Your task to perform on an android device: What's the weather going to be tomorrow? Image 0: 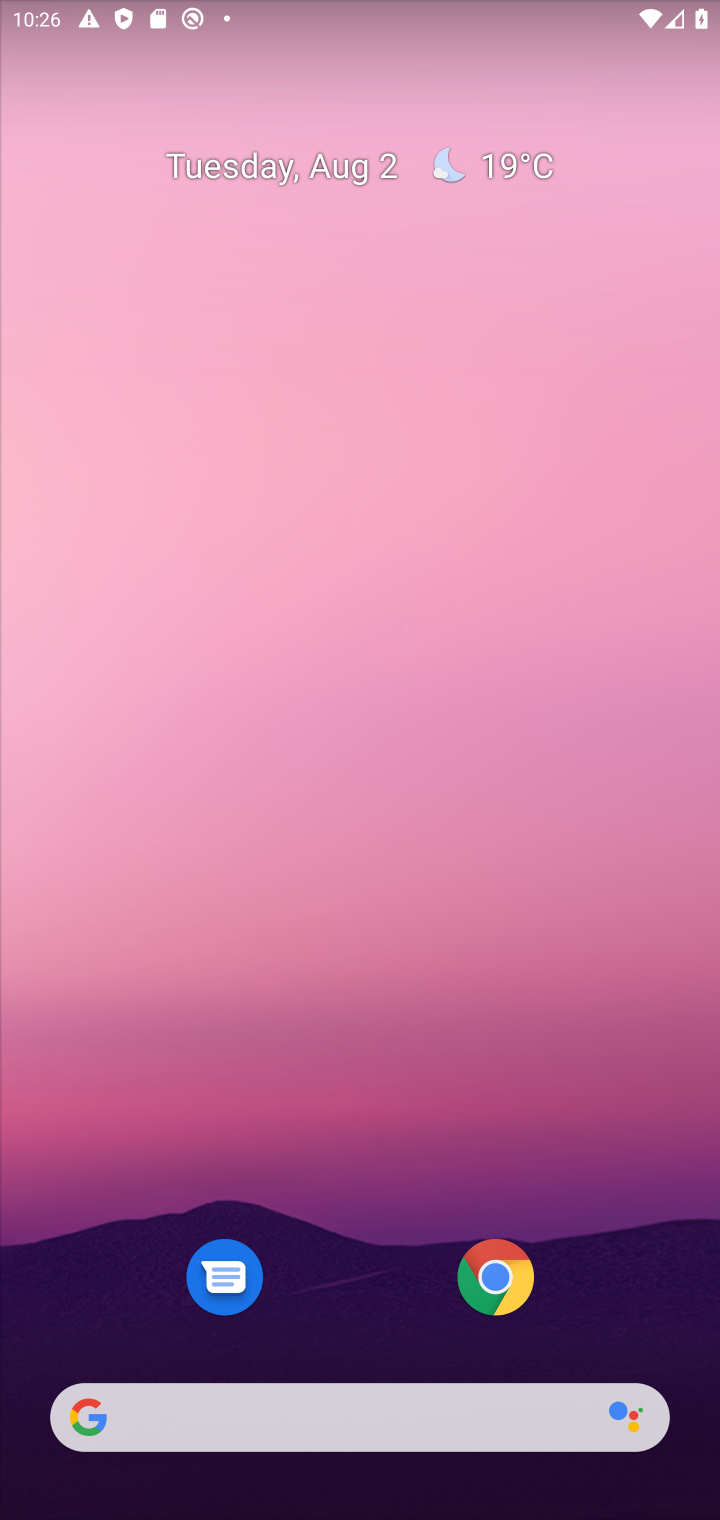
Step 0: click (81, 1420)
Your task to perform on an android device: What's the weather going to be tomorrow? Image 1: 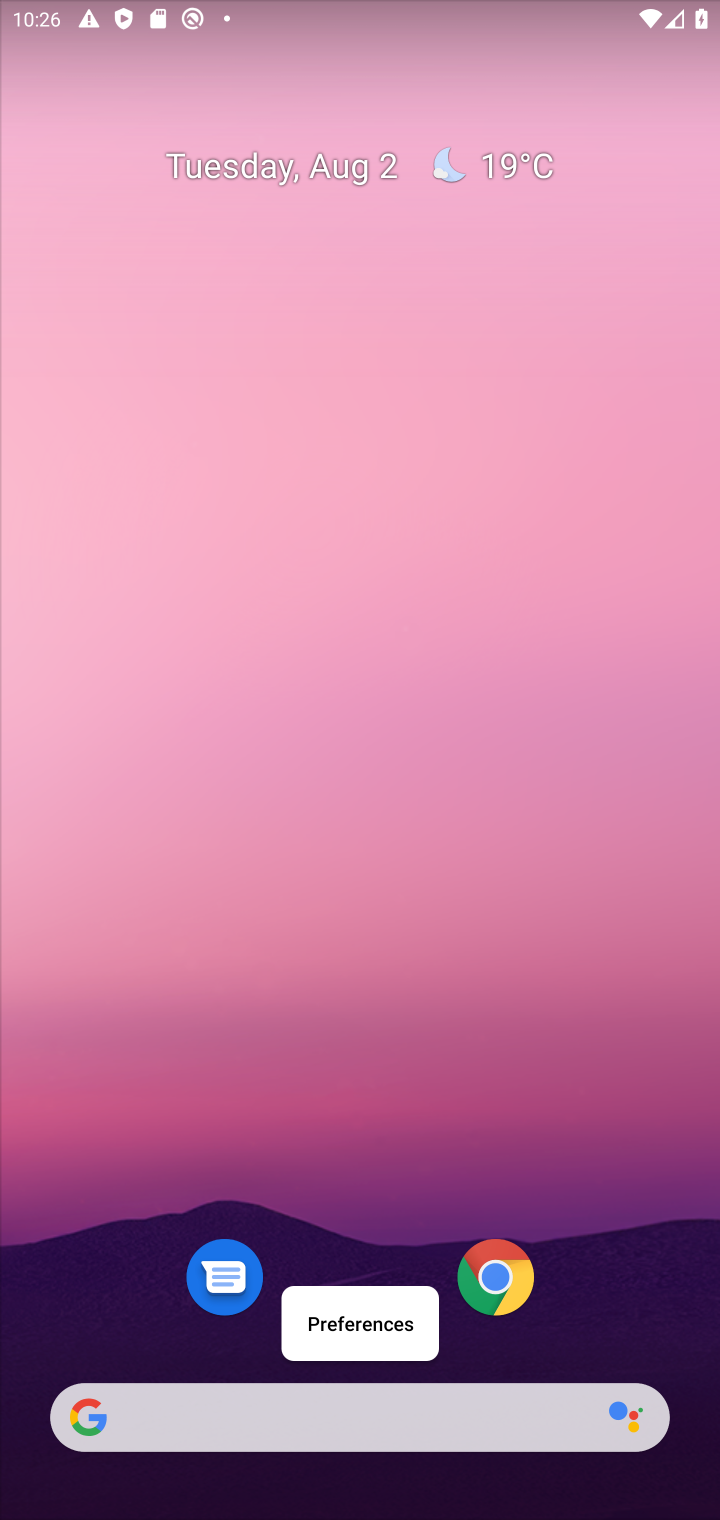
Step 1: click (84, 1414)
Your task to perform on an android device: What's the weather going to be tomorrow? Image 2: 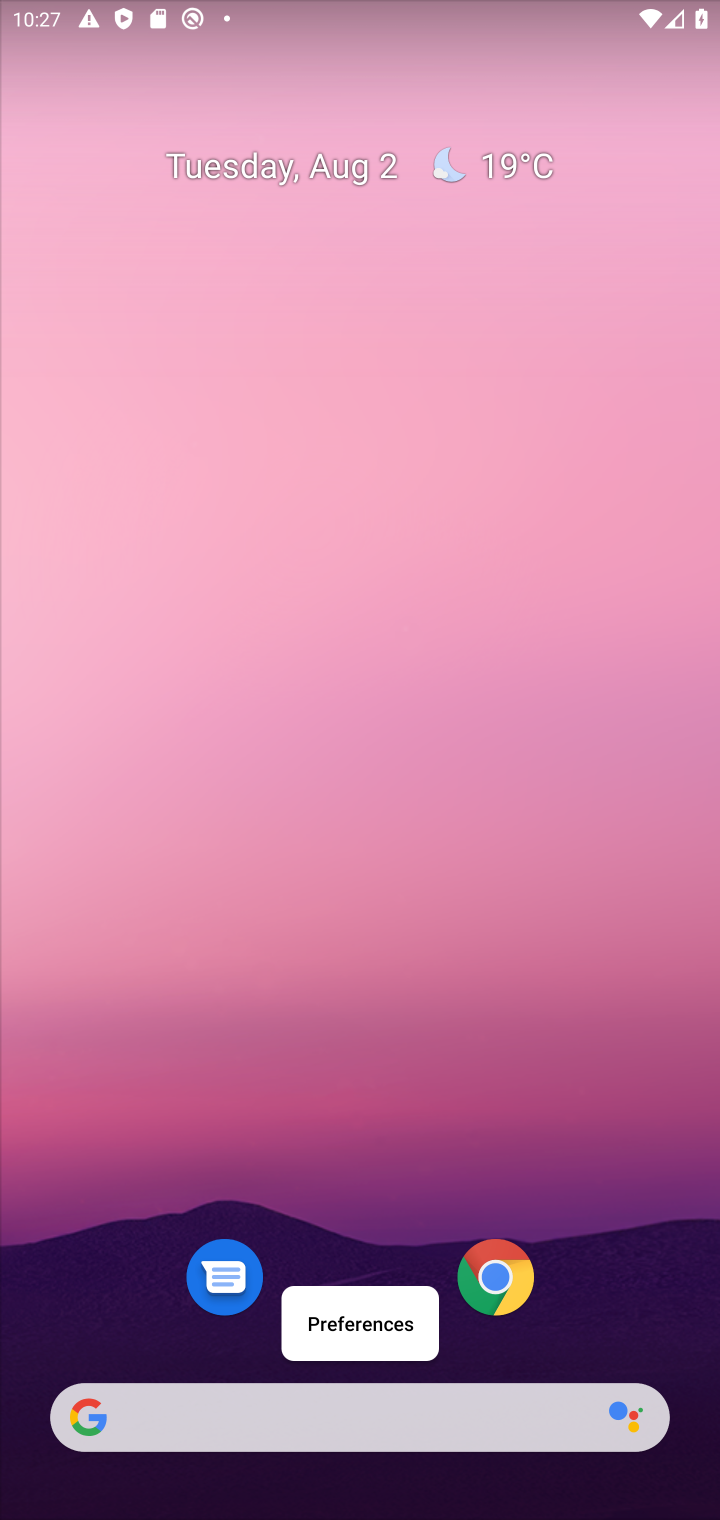
Step 2: click (84, 1414)
Your task to perform on an android device: What's the weather going to be tomorrow? Image 3: 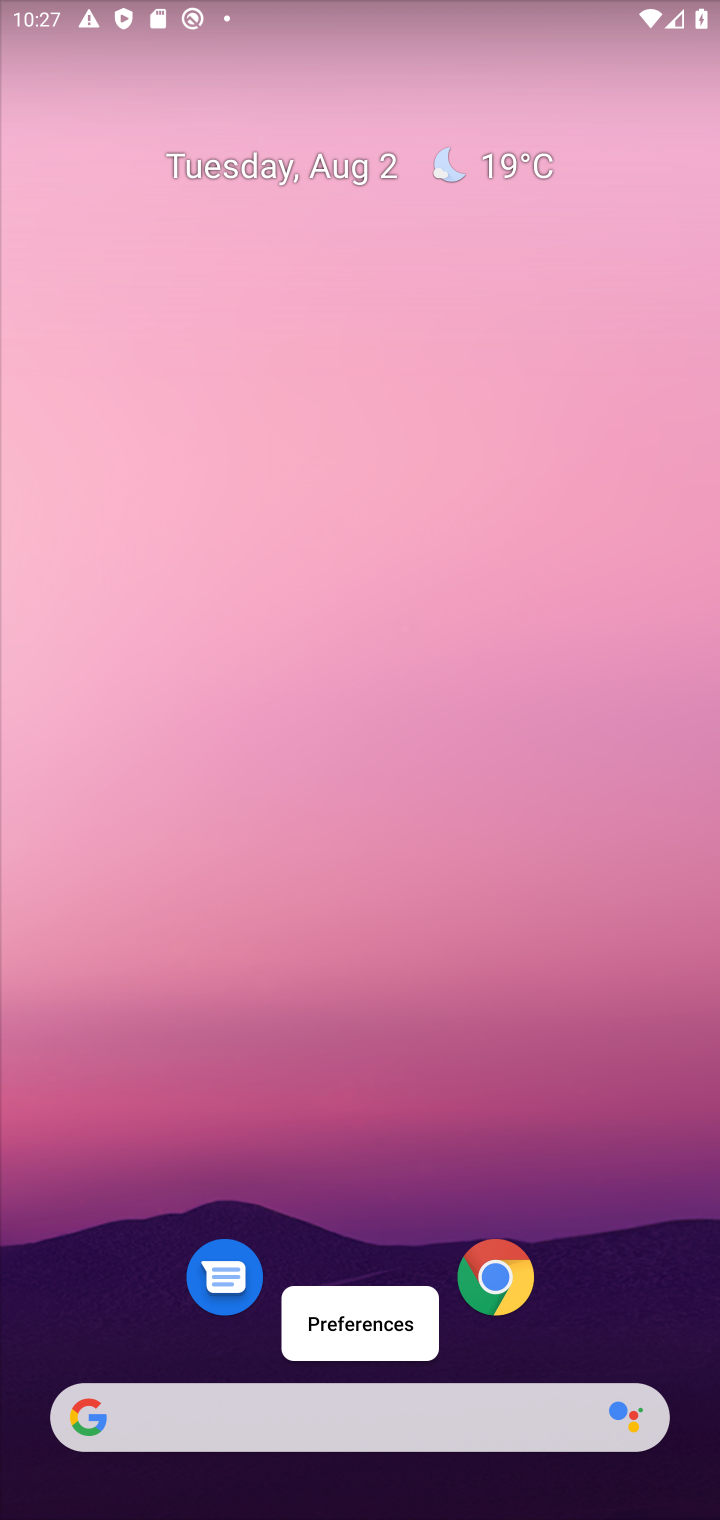
Step 3: click (93, 1419)
Your task to perform on an android device: What's the weather going to be tomorrow? Image 4: 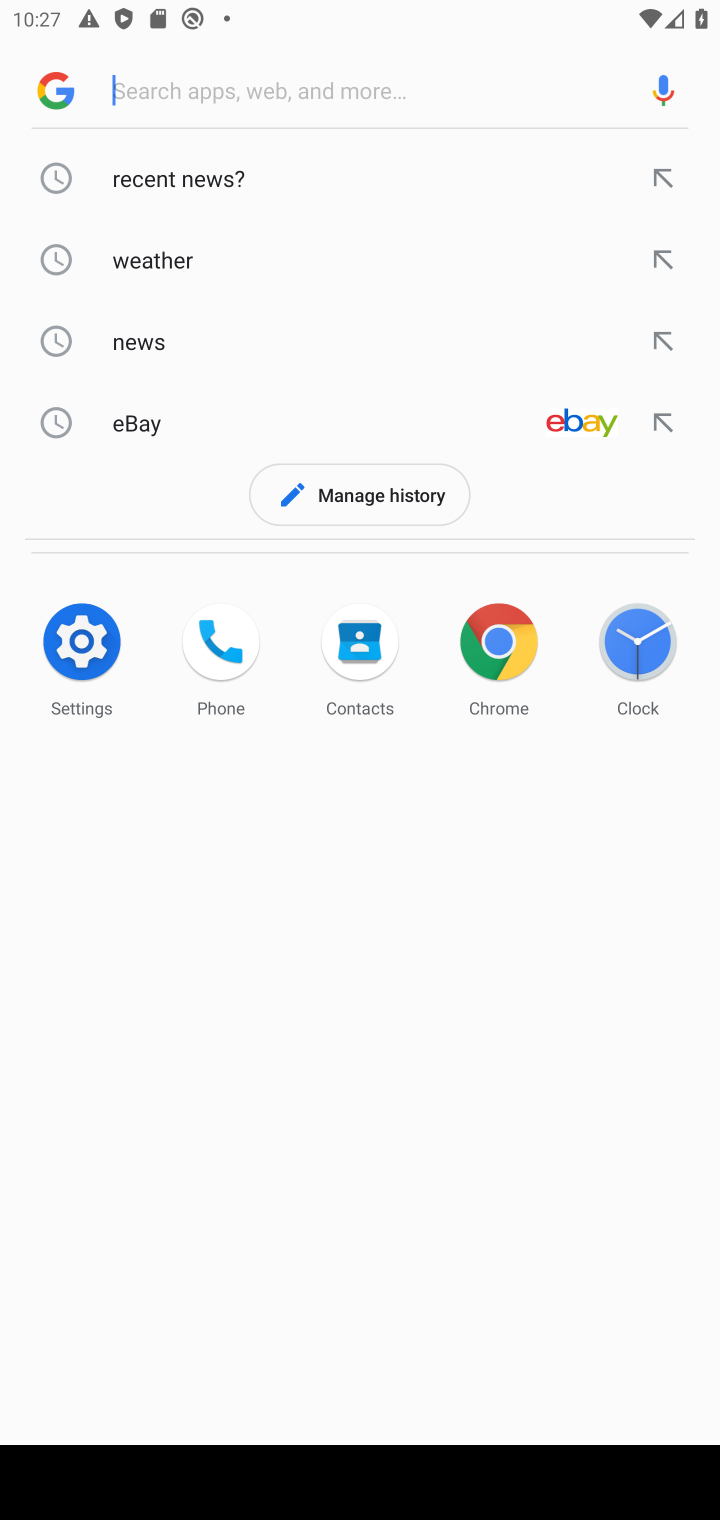
Step 4: type " weather going to be tomorrow?"
Your task to perform on an android device: What's the weather going to be tomorrow? Image 5: 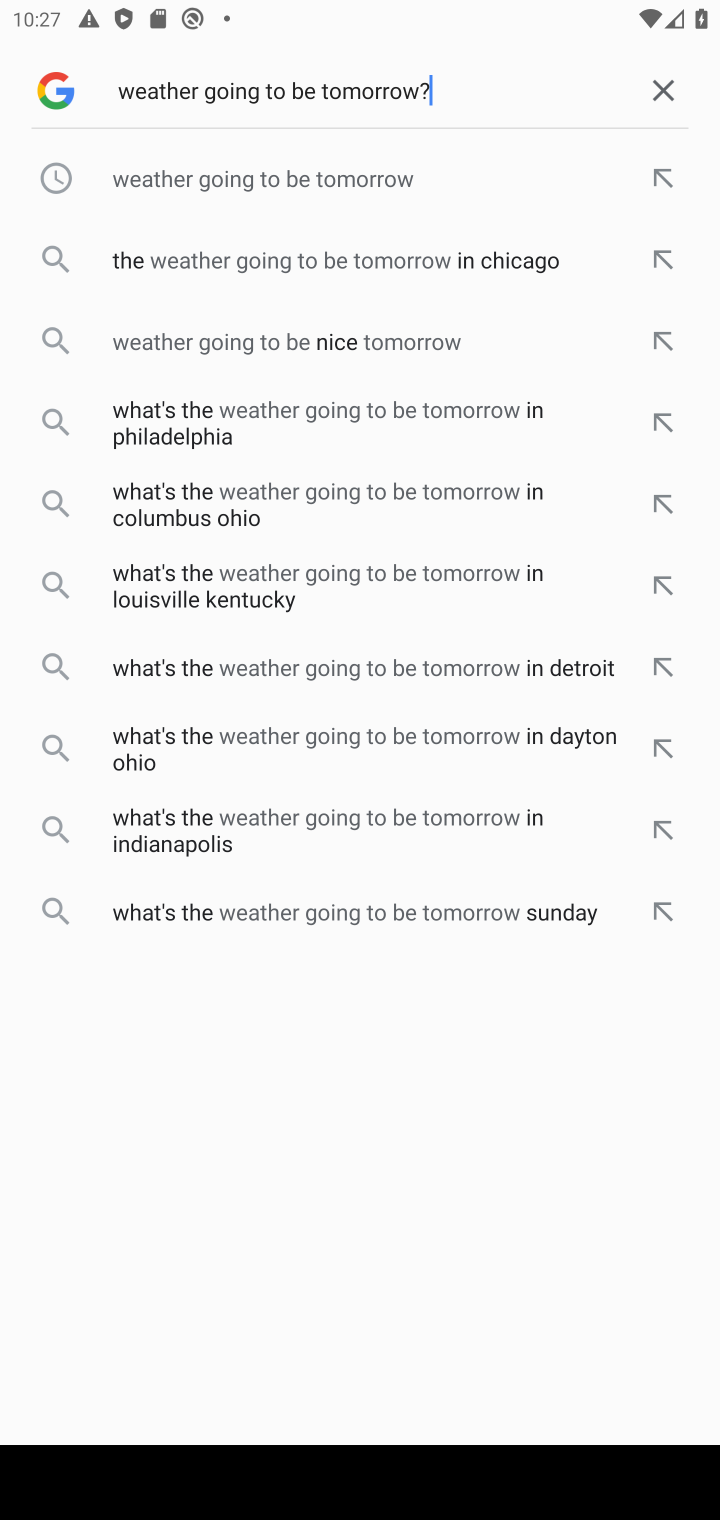
Step 5: press enter
Your task to perform on an android device: What's the weather going to be tomorrow? Image 6: 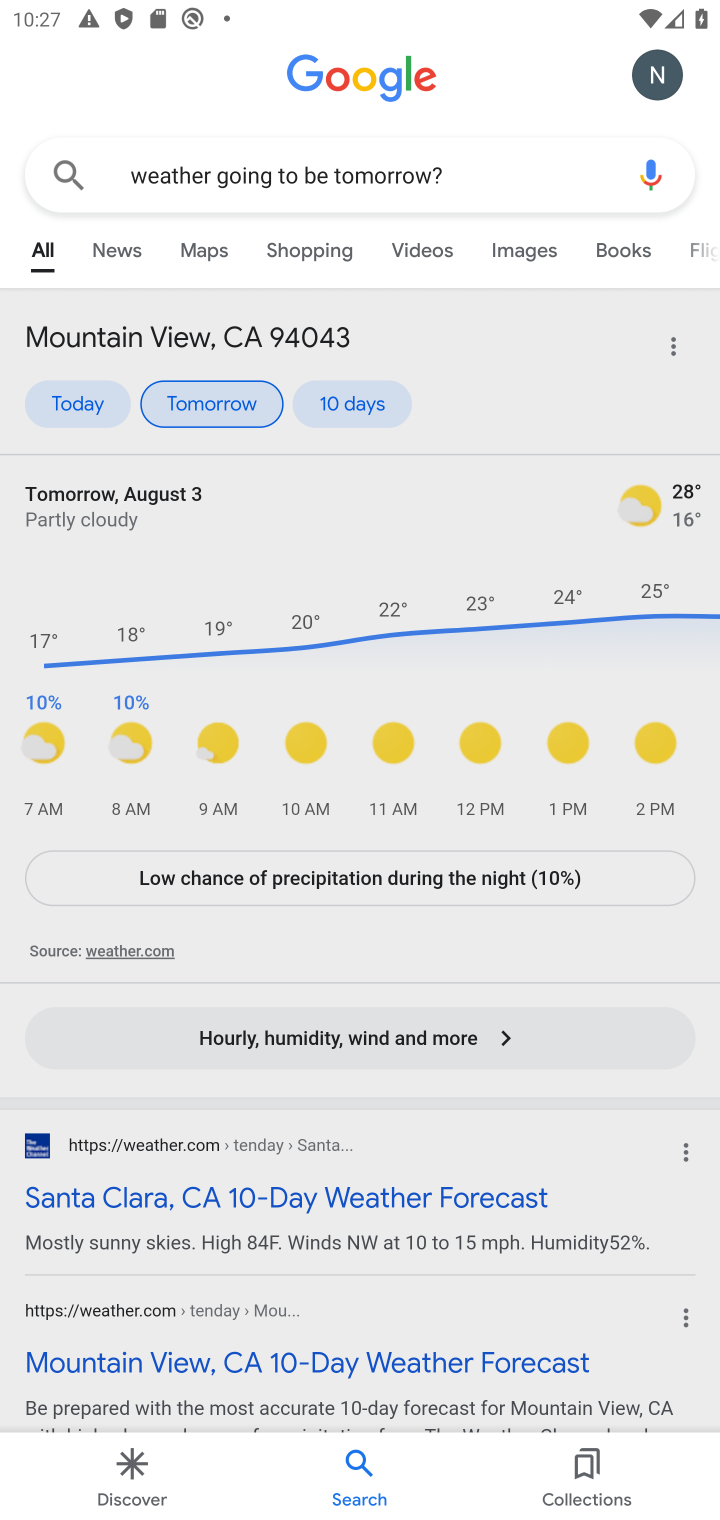
Step 6: task complete